Your task to perform on an android device: Open the web browser Image 0: 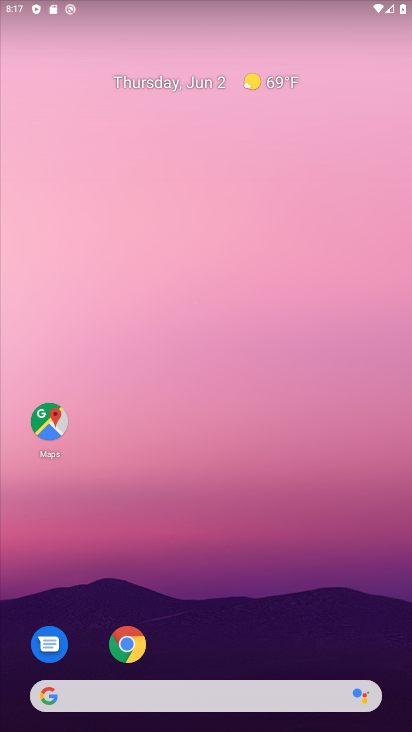
Step 0: drag from (216, 596) to (110, 22)
Your task to perform on an android device: Open the web browser Image 1: 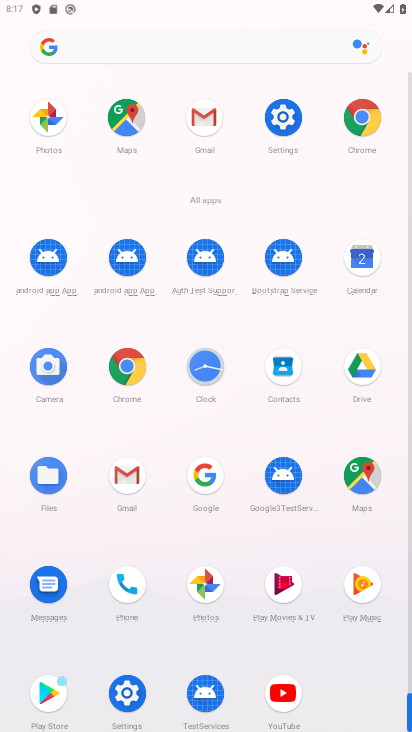
Step 1: click (126, 364)
Your task to perform on an android device: Open the web browser Image 2: 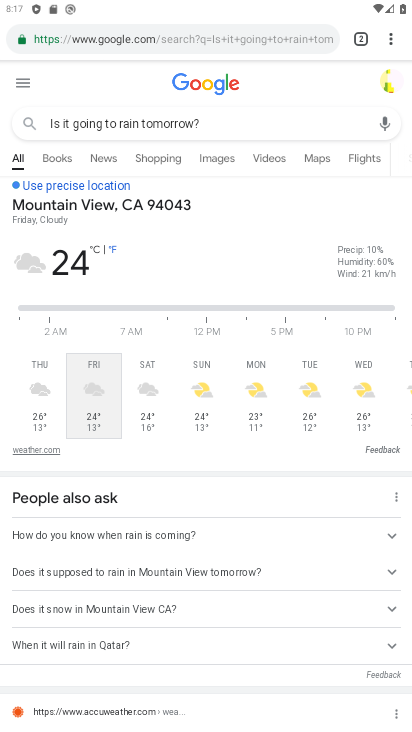
Step 2: task complete